Your task to perform on an android device: turn on location history Image 0: 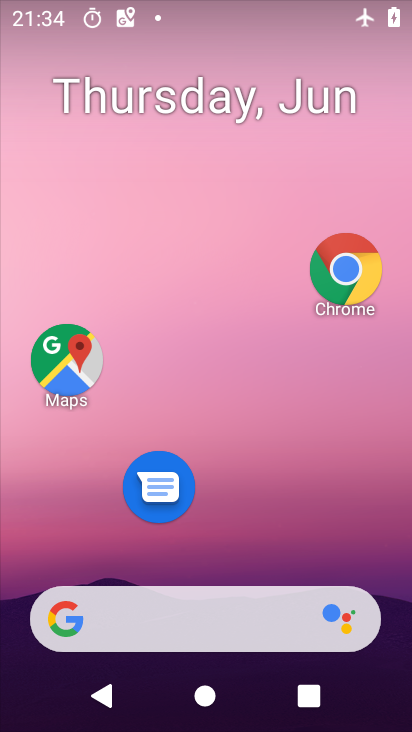
Step 0: drag from (208, 507) to (216, 362)
Your task to perform on an android device: turn on location history Image 1: 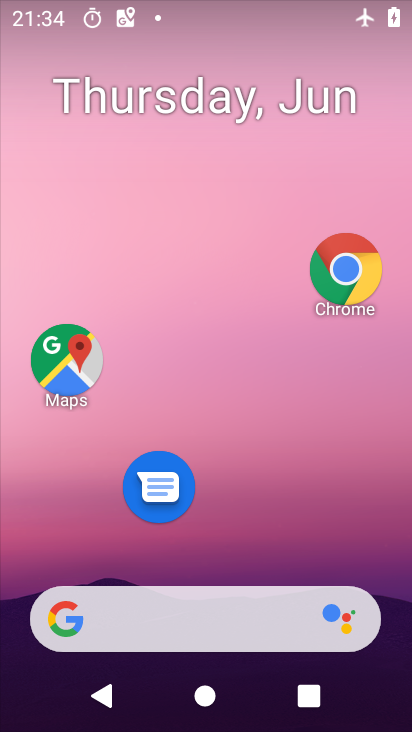
Step 1: drag from (213, 539) to (255, 332)
Your task to perform on an android device: turn on location history Image 2: 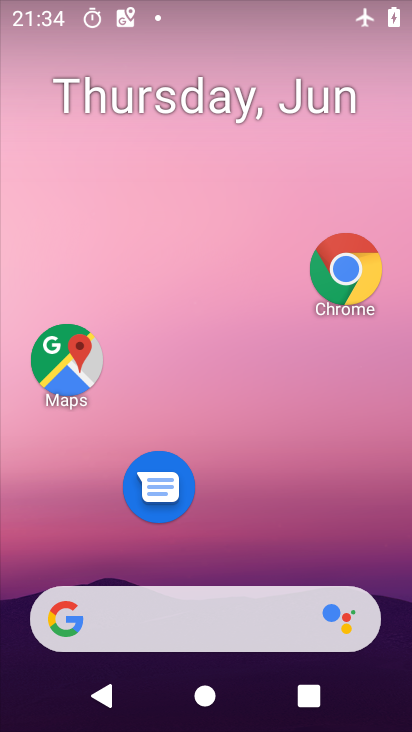
Step 2: drag from (213, 545) to (278, 154)
Your task to perform on an android device: turn on location history Image 3: 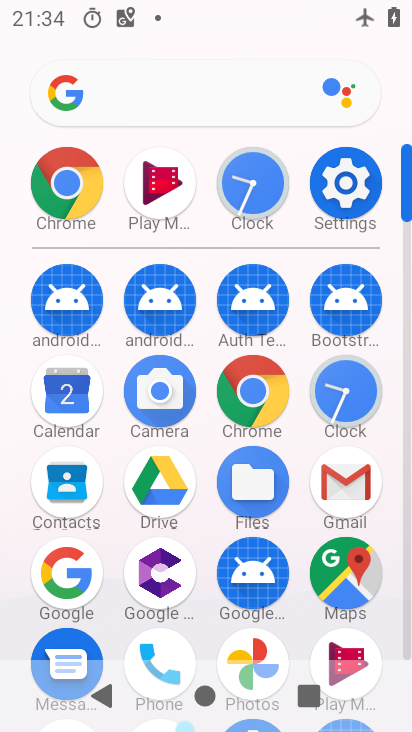
Step 3: click (343, 194)
Your task to perform on an android device: turn on location history Image 4: 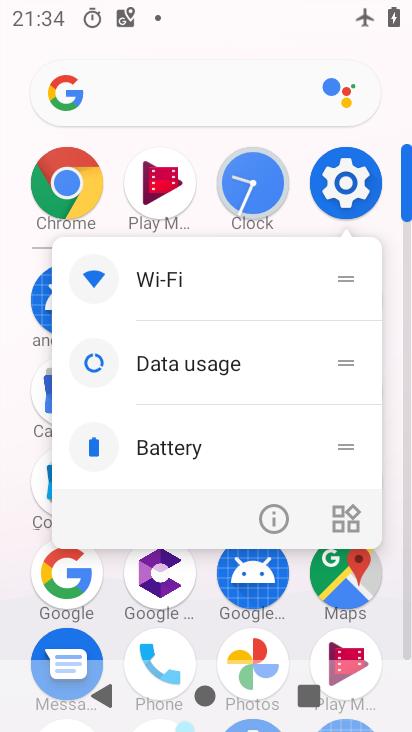
Step 4: click (262, 523)
Your task to perform on an android device: turn on location history Image 5: 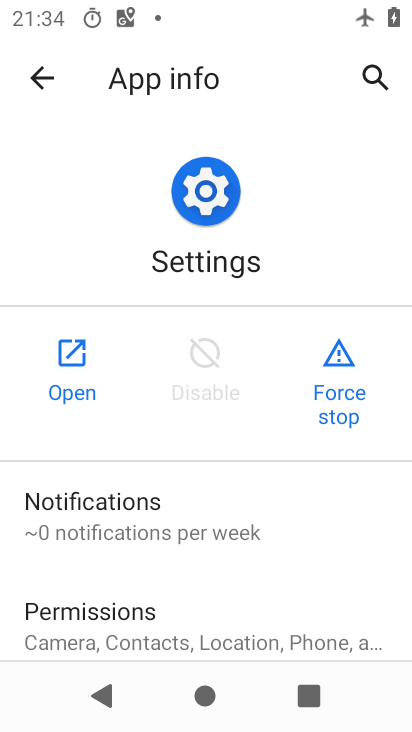
Step 5: click (52, 354)
Your task to perform on an android device: turn on location history Image 6: 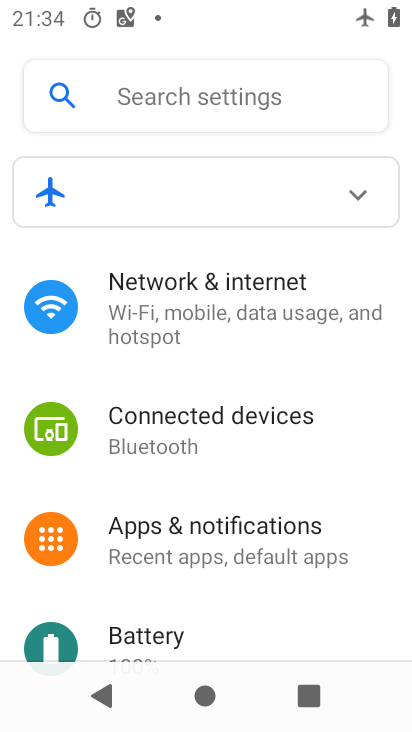
Step 6: drag from (249, 578) to (280, 12)
Your task to perform on an android device: turn on location history Image 7: 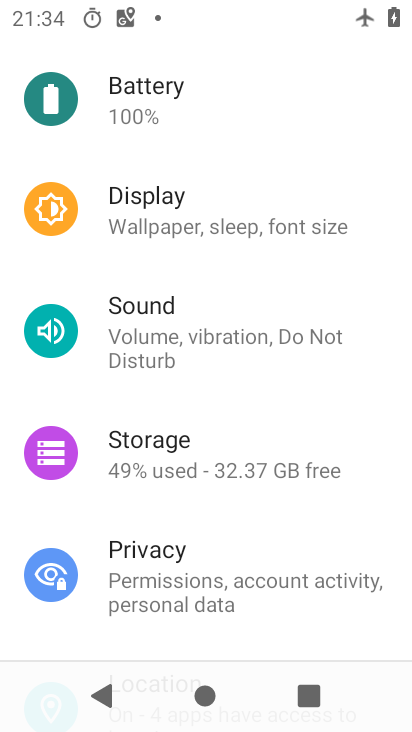
Step 7: drag from (224, 555) to (222, 150)
Your task to perform on an android device: turn on location history Image 8: 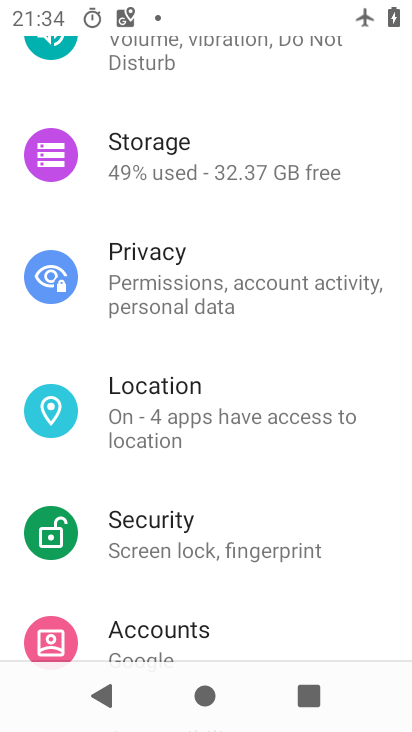
Step 8: click (180, 406)
Your task to perform on an android device: turn on location history Image 9: 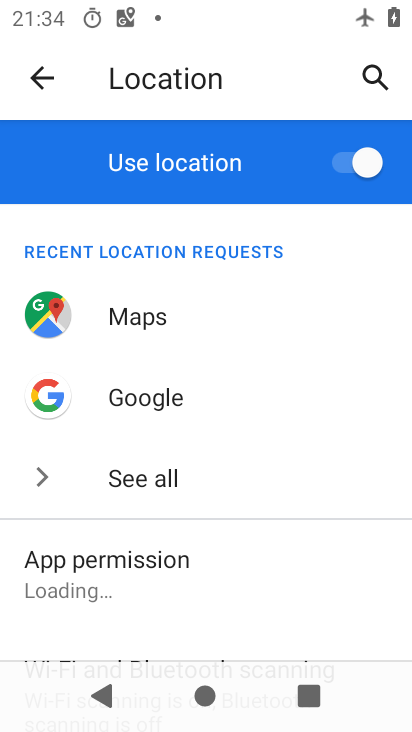
Step 9: drag from (247, 534) to (308, 18)
Your task to perform on an android device: turn on location history Image 10: 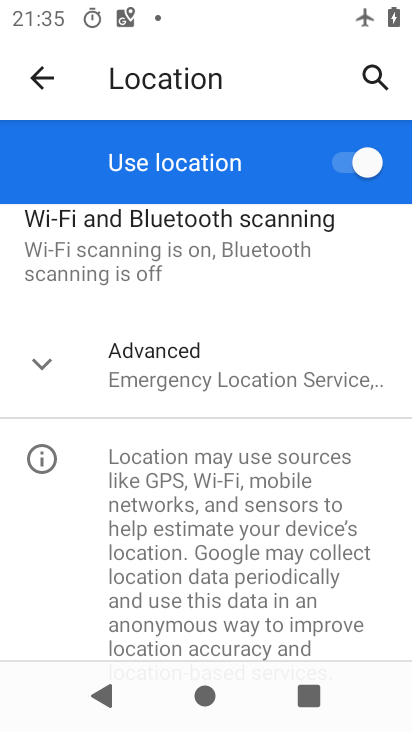
Step 10: click (154, 368)
Your task to perform on an android device: turn on location history Image 11: 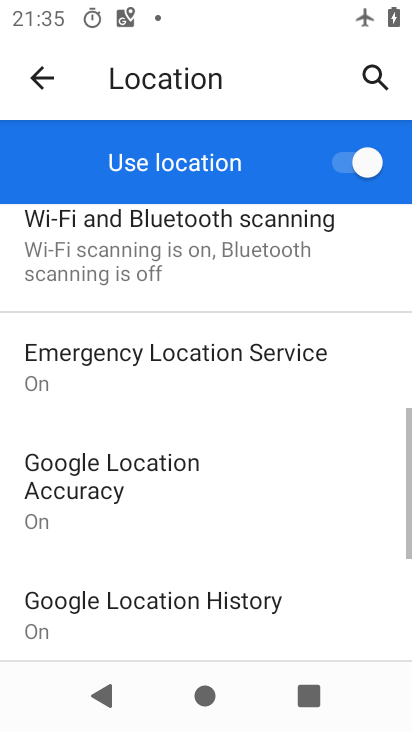
Step 11: drag from (278, 550) to (407, 12)
Your task to perform on an android device: turn on location history Image 12: 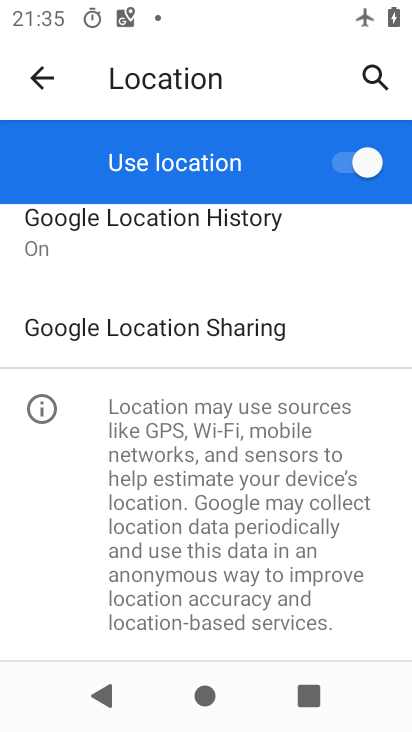
Step 12: click (181, 227)
Your task to perform on an android device: turn on location history Image 13: 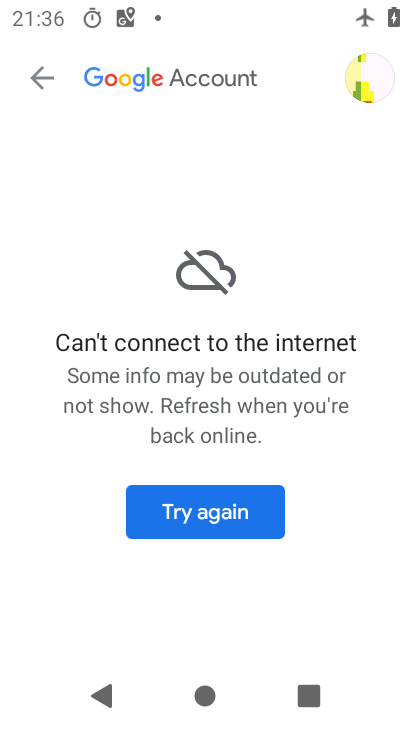
Step 13: task complete